Your task to perform on an android device: check out phone information Image 0: 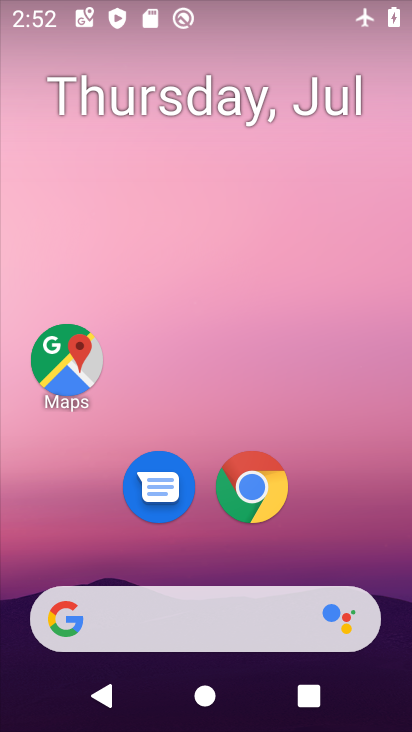
Step 0: drag from (377, 563) to (366, 181)
Your task to perform on an android device: check out phone information Image 1: 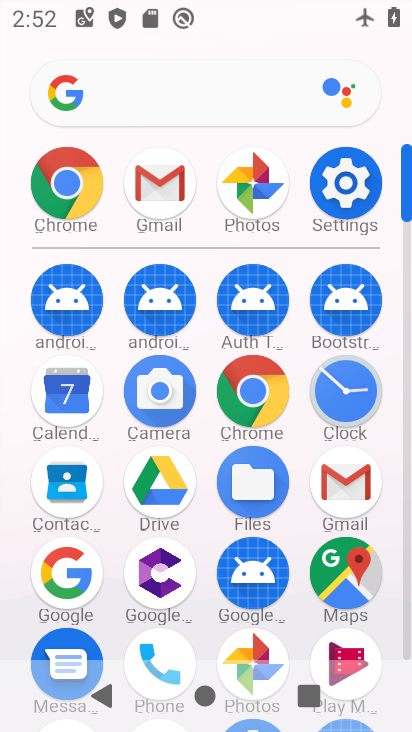
Step 1: drag from (391, 498) to (385, 241)
Your task to perform on an android device: check out phone information Image 2: 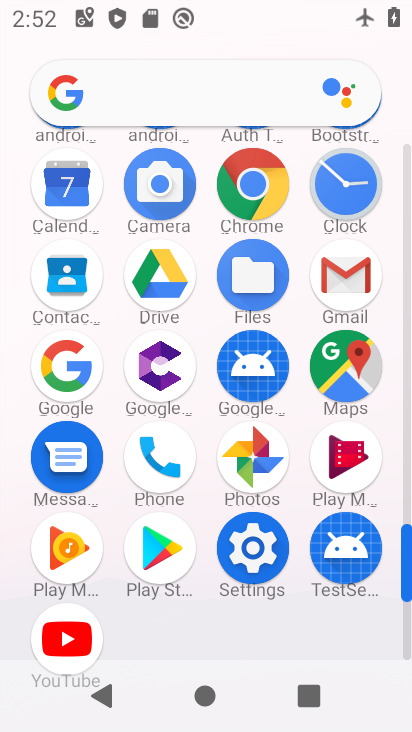
Step 2: click (166, 461)
Your task to perform on an android device: check out phone information Image 3: 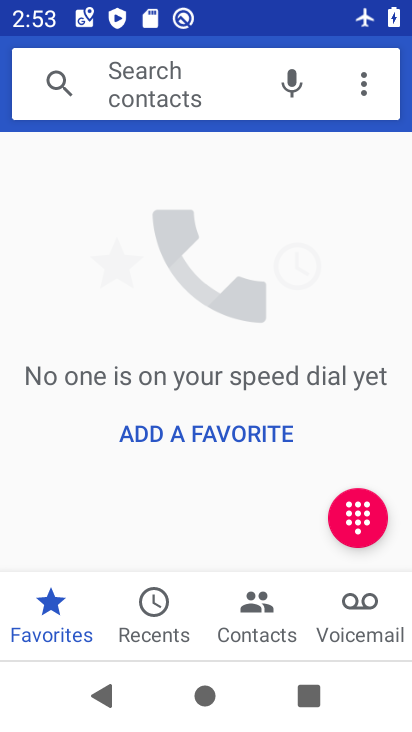
Step 3: task complete